Your task to perform on an android device: Open Google Chrome Image 0: 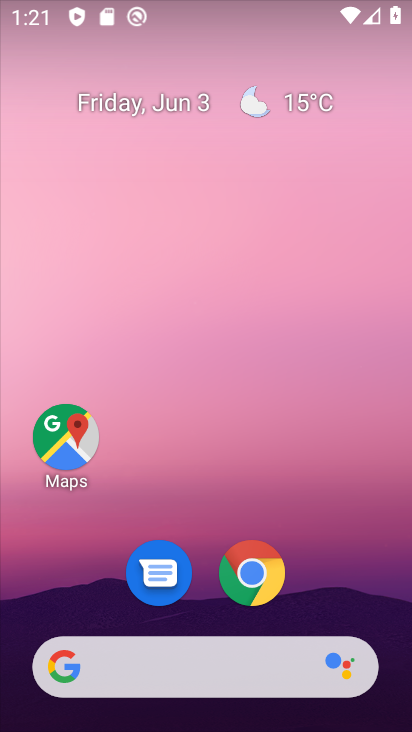
Step 0: task complete